Your task to perform on an android device: Search for Italian restaurants on Maps Image 0: 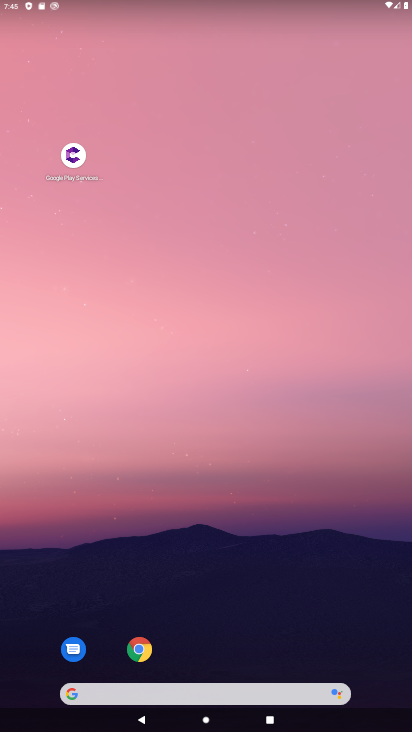
Step 0: drag from (227, 690) to (74, 4)
Your task to perform on an android device: Search for Italian restaurants on Maps Image 1: 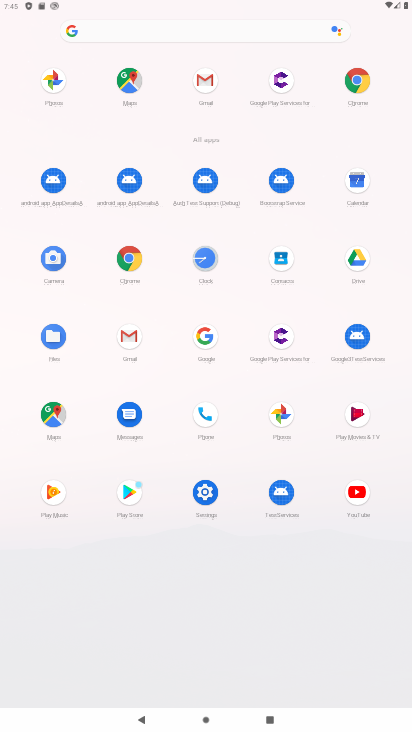
Step 1: click (59, 408)
Your task to perform on an android device: Search for Italian restaurants on Maps Image 2: 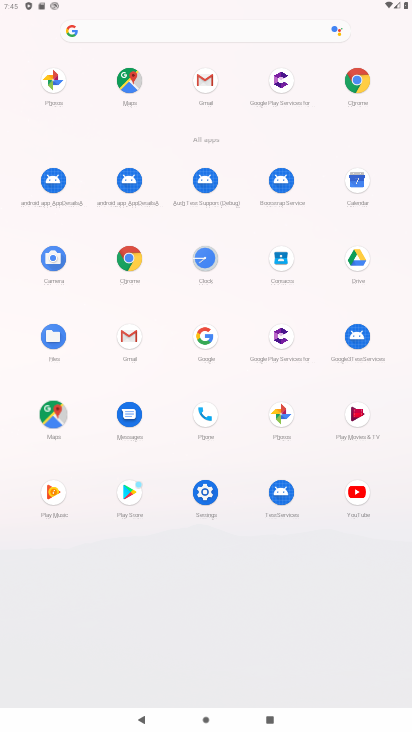
Step 2: click (58, 409)
Your task to perform on an android device: Search for Italian restaurants on Maps Image 3: 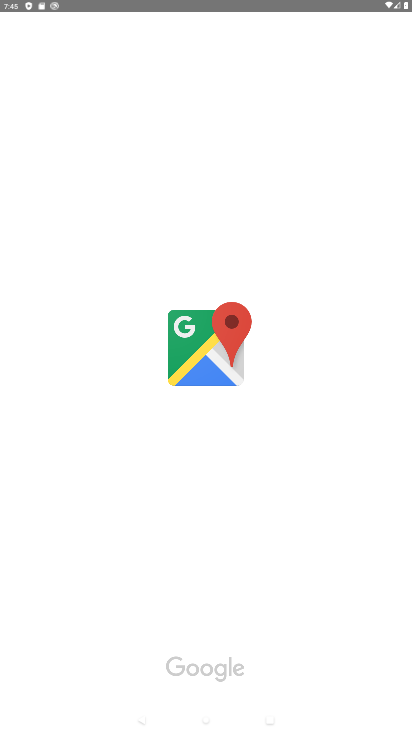
Step 3: click (57, 409)
Your task to perform on an android device: Search for Italian restaurants on Maps Image 4: 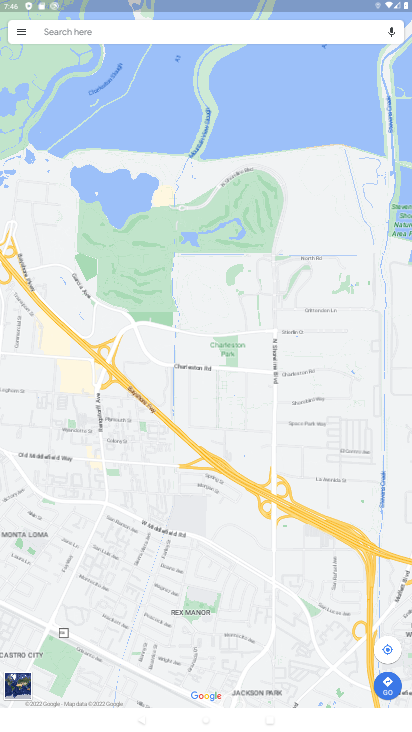
Step 4: press back button
Your task to perform on an android device: Search for Italian restaurants on Maps Image 5: 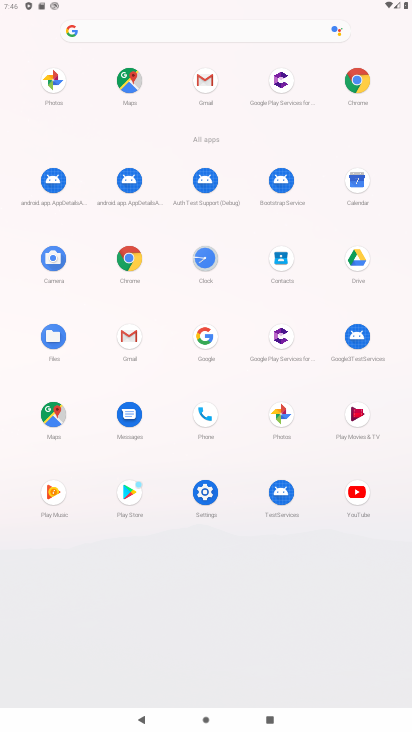
Step 5: click (55, 416)
Your task to perform on an android device: Search for Italian restaurants on Maps Image 6: 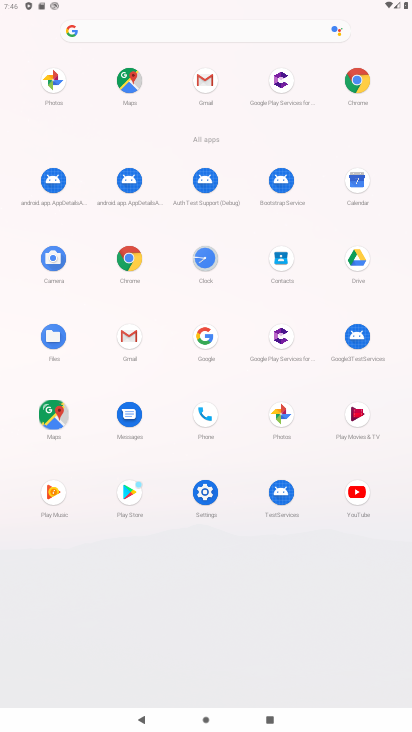
Step 6: click (55, 415)
Your task to perform on an android device: Search for Italian restaurants on Maps Image 7: 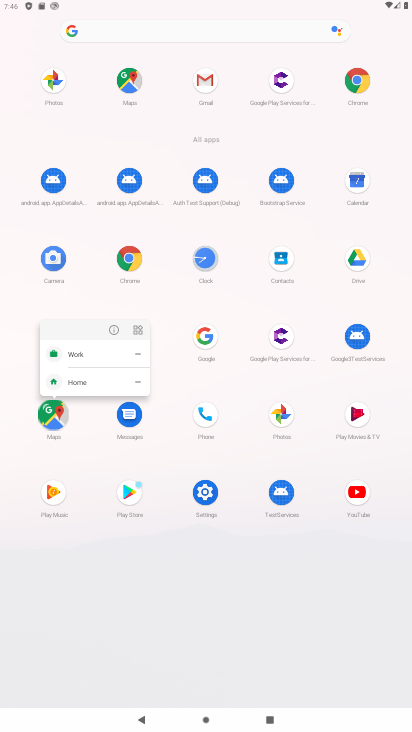
Step 7: click (57, 417)
Your task to perform on an android device: Search for Italian restaurants on Maps Image 8: 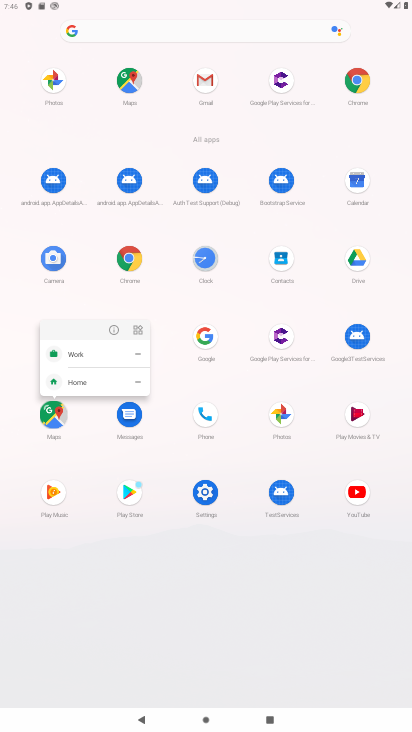
Step 8: click (57, 417)
Your task to perform on an android device: Search for Italian restaurants on Maps Image 9: 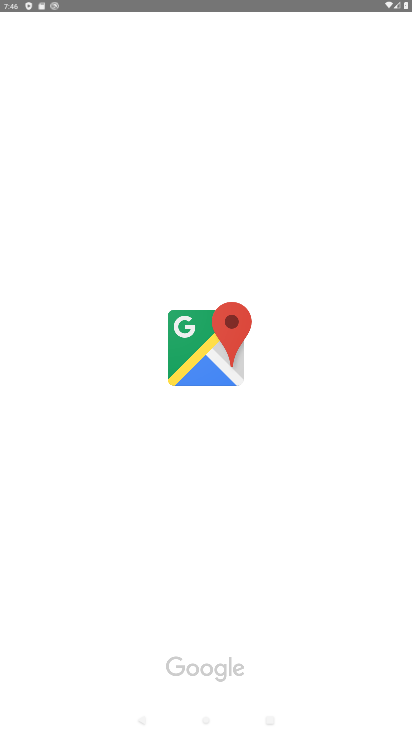
Step 9: click (56, 416)
Your task to perform on an android device: Search for Italian restaurants on Maps Image 10: 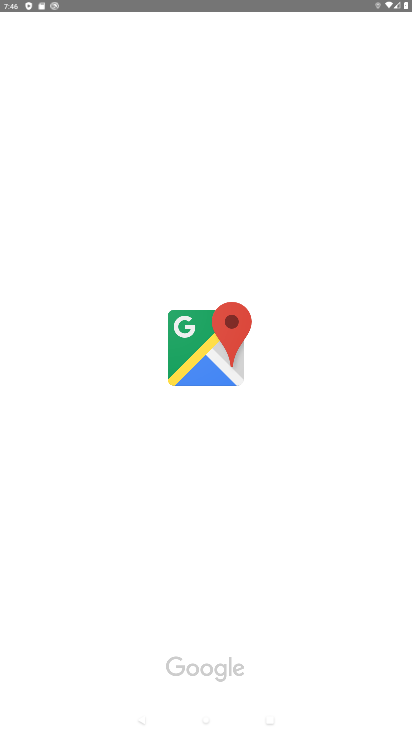
Step 10: click (54, 410)
Your task to perform on an android device: Search for Italian restaurants on Maps Image 11: 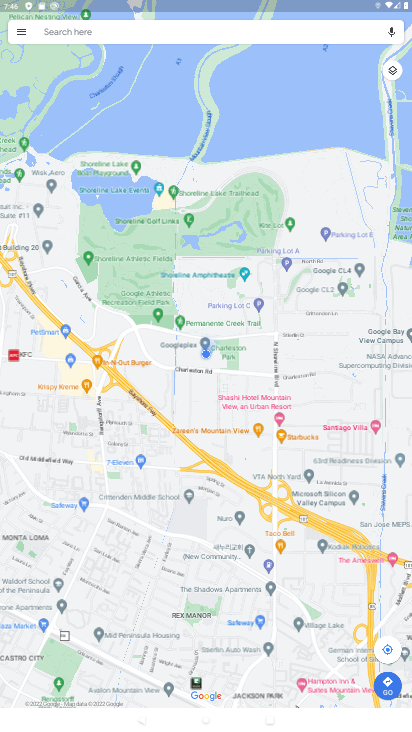
Step 11: click (43, 26)
Your task to perform on an android device: Search for Italian restaurants on Maps Image 12: 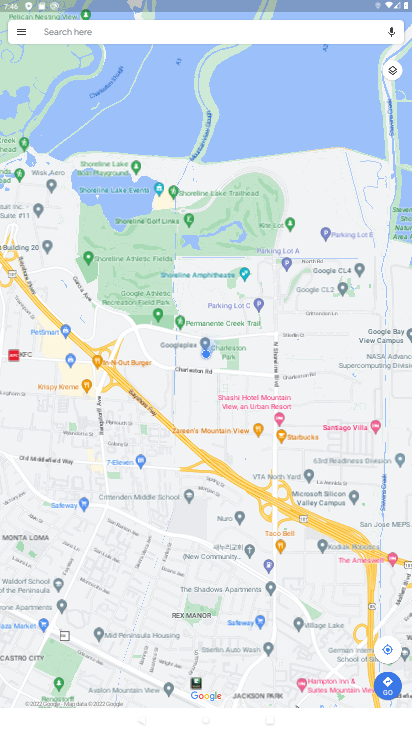
Step 12: click (43, 26)
Your task to perform on an android device: Search for Italian restaurants on Maps Image 13: 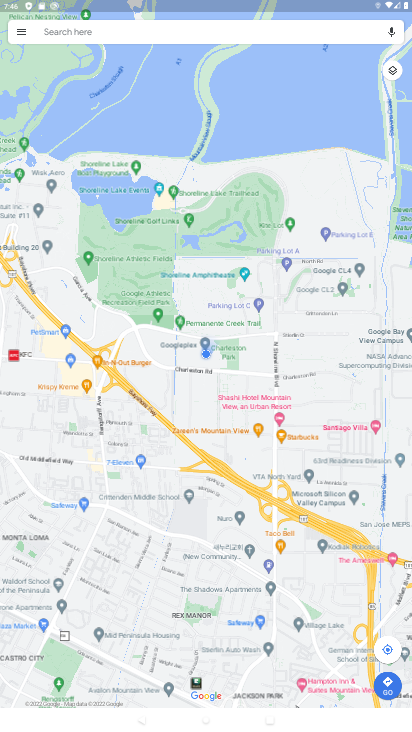
Step 13: click (43, 26)
Your task to perform on an android device: Search for Italian restaurants on Maps Image 14: 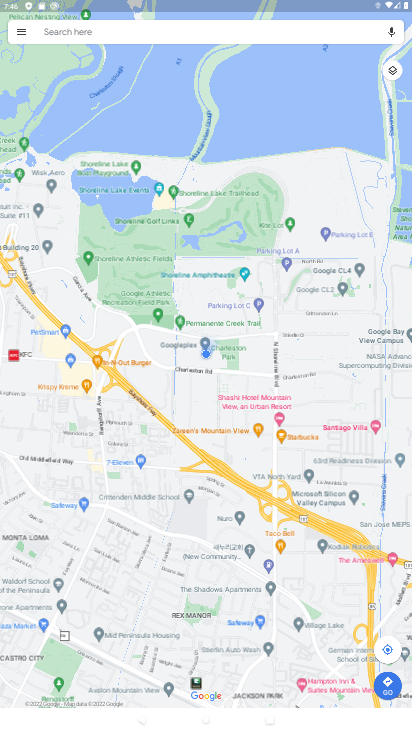
Step 14: click (44, 28)
Your task to perform on an android device: Search for Italian restaurants on Maps Image 15: 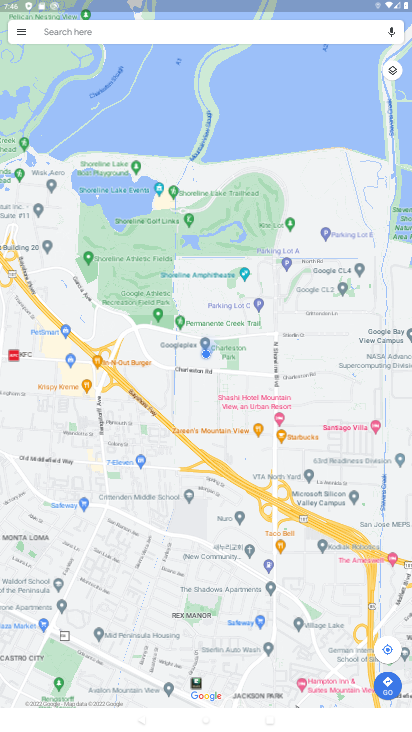
Step 15: click (44, 28)
Your task to perform on an android device: Search for Italian restaurants on Maps Image 16: 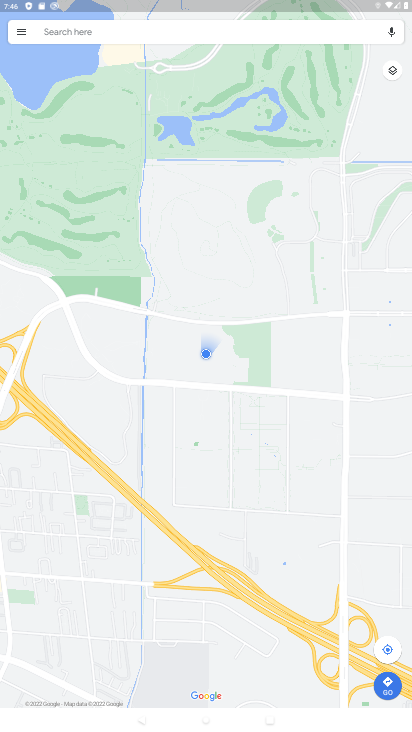
Step 16: click (46, 30)
Your task to perform on an android device: Search for Italian restaurants on Maps Image 17: 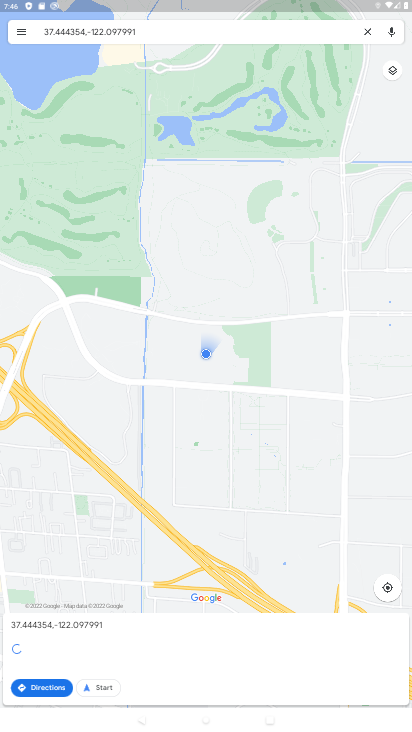
Step 17: click (51, 35)
Your task to perform on an android device: Search for Italian restaurants on Maps Image 18: 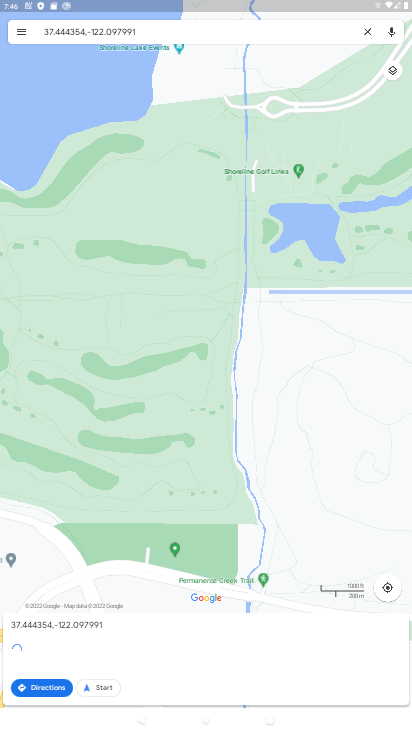
Step 18: click (58, 31)
Your task to perform on an android device: Search for Italian restaurants on Maps Image 19: 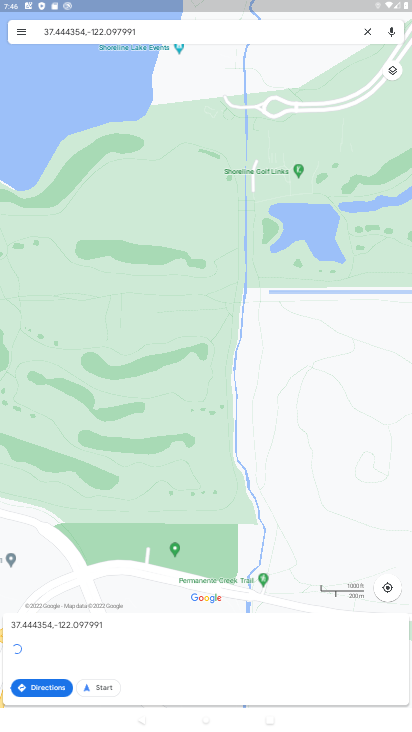
Step 19: click (59, 30)
Your task to perform on an android device: Search for Italian restaurants on Maps Image 20: 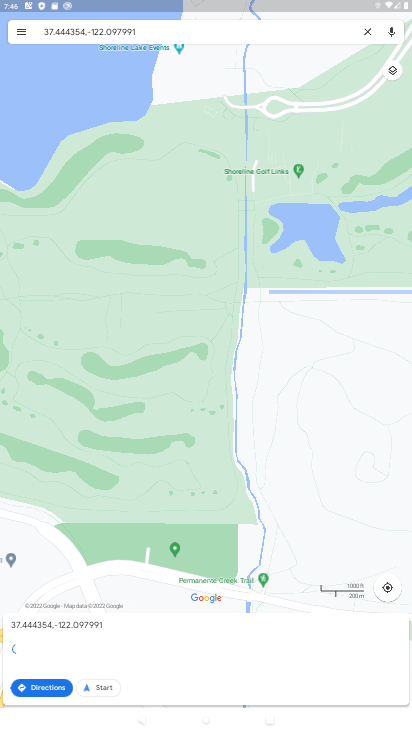
Step 20: click (60, 28)
Your task to perform on an android device: Search for Italian restaurants on Maps Image 21: 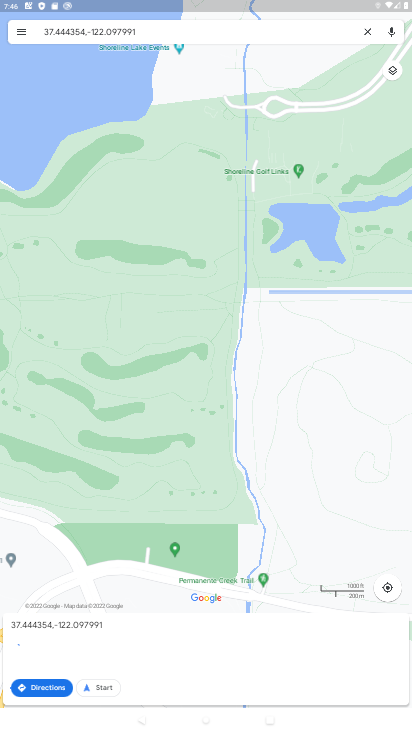
Step 21: click (61, 29)
Your task to perform on an android device: Search for Italian restaurants on Maps Image 22: 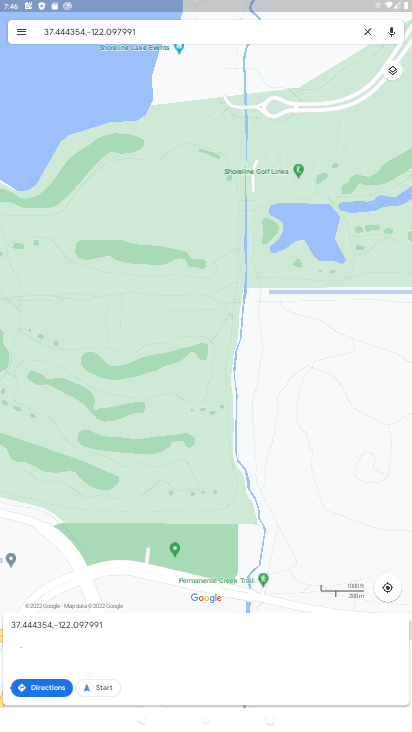
Step 22: click (61, 29)
Your task to perform on an android device: Search for Italian restaurants on Maps Image 23: 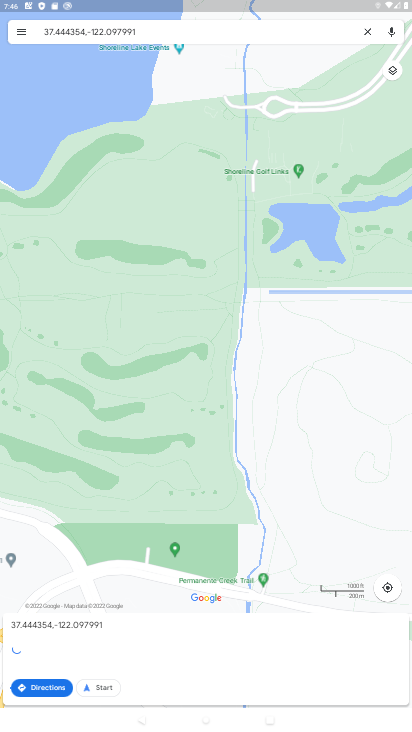
Step 23: click (66, 33)
Your task to perform on an android device: Search for Italian restaurants on Maps Image 24: 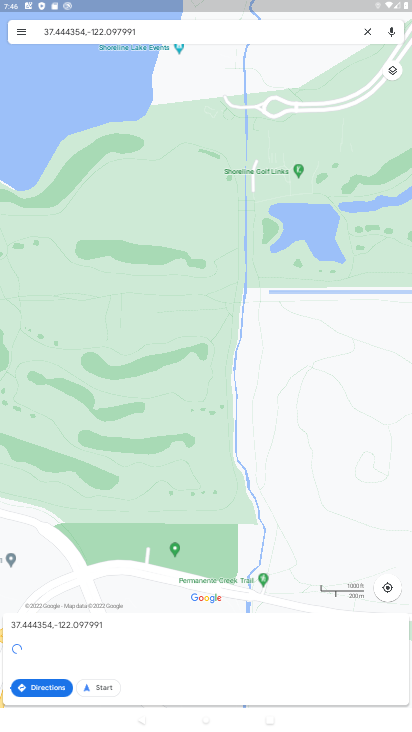
Step 24: click (68, 34)
Your task to perform on an android device: Search for Italian restaurants on Maps Image 25: 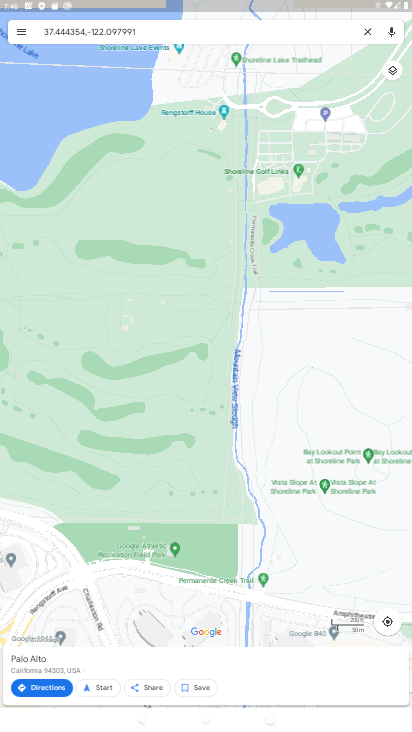
Step 25: click (110, 28)
Your task to perform on an android device: Search for Italian restaurants on Maps Image 26: 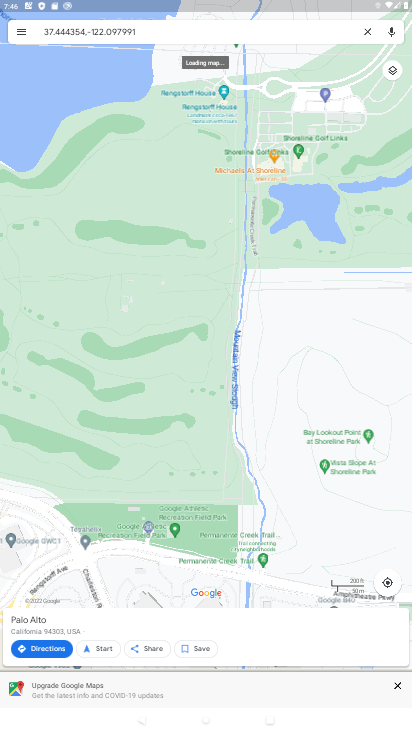
Step 26: click (110, 28)
Your task to perform on an android device: Search for Italian restaurants on Maps Image 27: 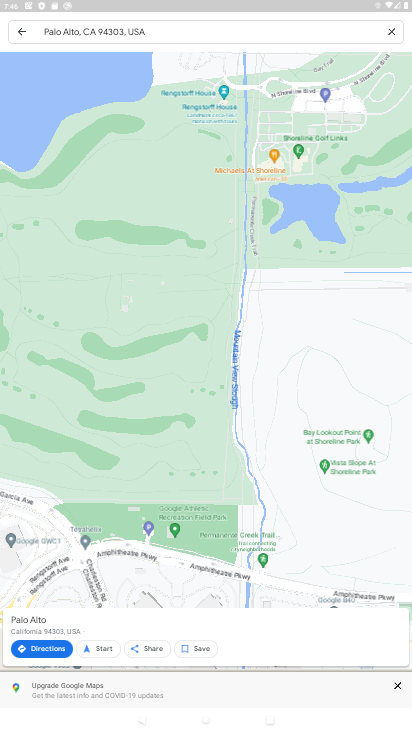
Step 27: click (107, 31)
Your task to perform on an android device: Search for Italian restaurants on Maps Image 28: 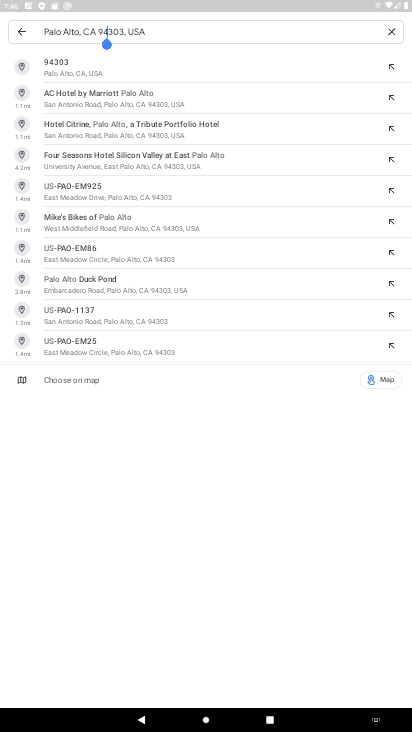
Step 28: click (394, 29)
Your task to perform on an android device: Search for Italian restaurants on Maps Image 29: 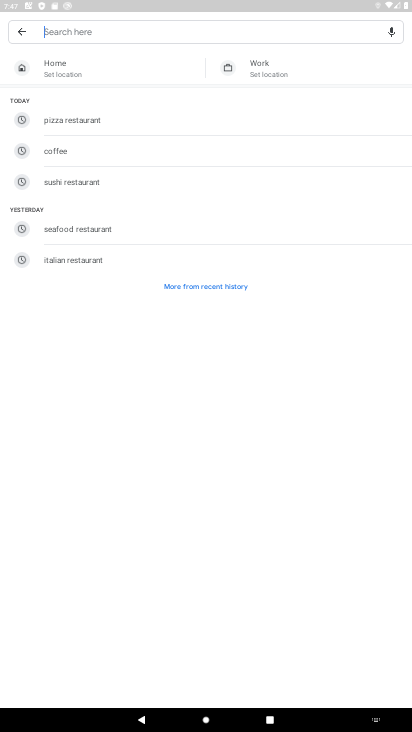
Step 29: type "italian restaurants"
Your task to perform on an android device: Search for Italian restaurants on Maps Image 30: 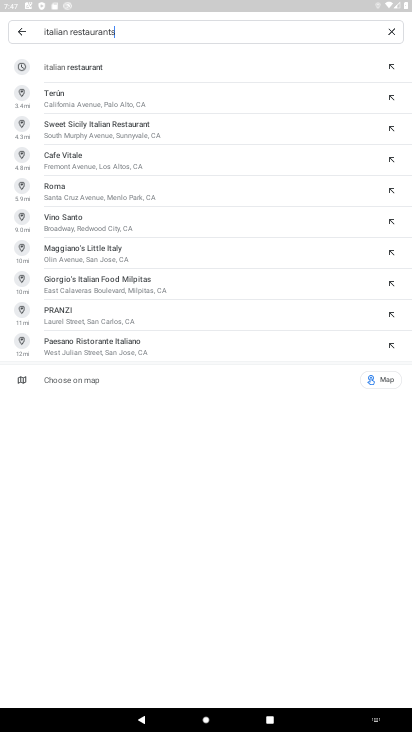
Step 30: click (92, 62)
Your task to perform on an android device: Search for Italian restaurants on Maps Image 31: 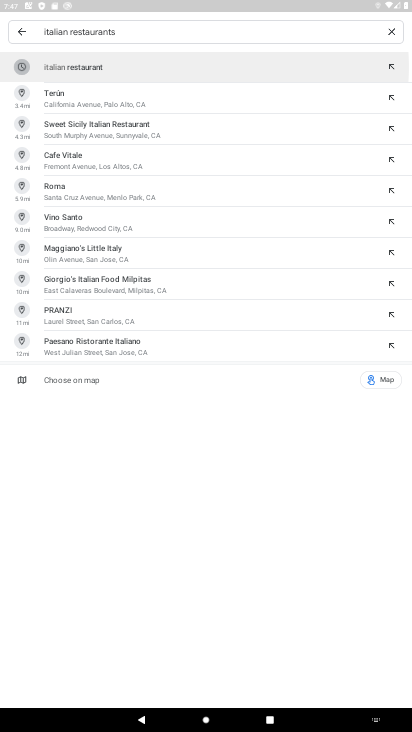
Step 31: click (92, 63)
Your task to perform on an android device: Search for Italian restaurants on Maps Image 32: 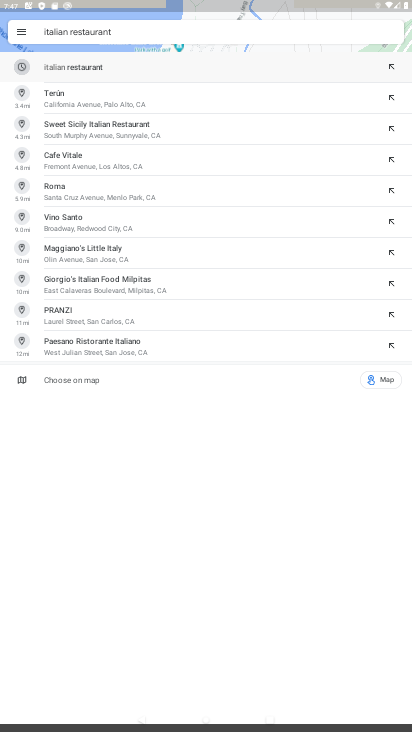
Step 32: click (90, 65)
Your task to perform on an android device: Search for Italian restaurants on Maps Image 33: 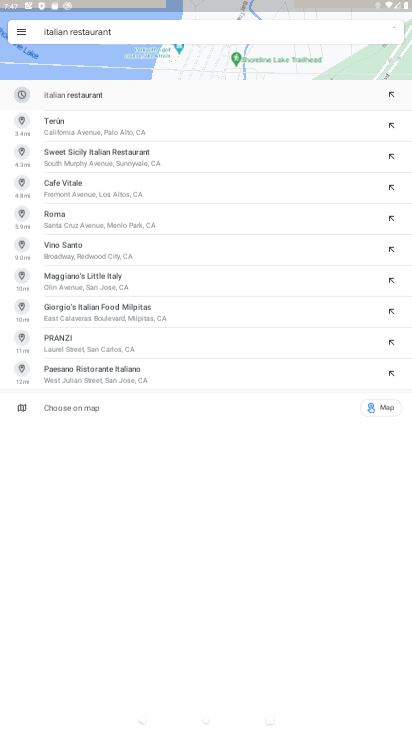
Step 33: click (88, 67)
Your task to perform on an android device: Search for Italian restaurants on Maps Image 34: 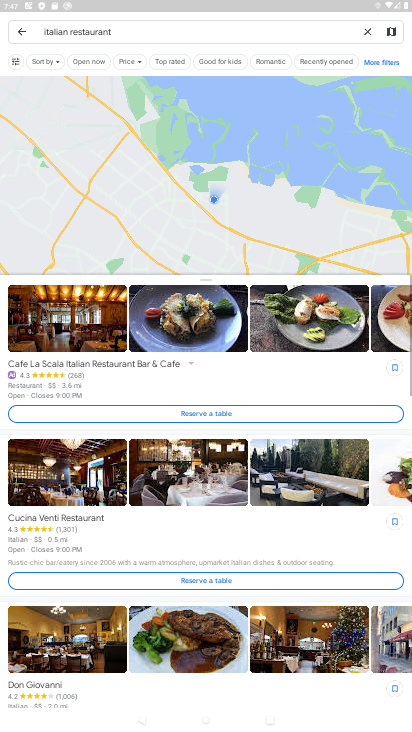
Step 34: task complete